Your task to perform on an android device: Open Reddit.com Image 0: 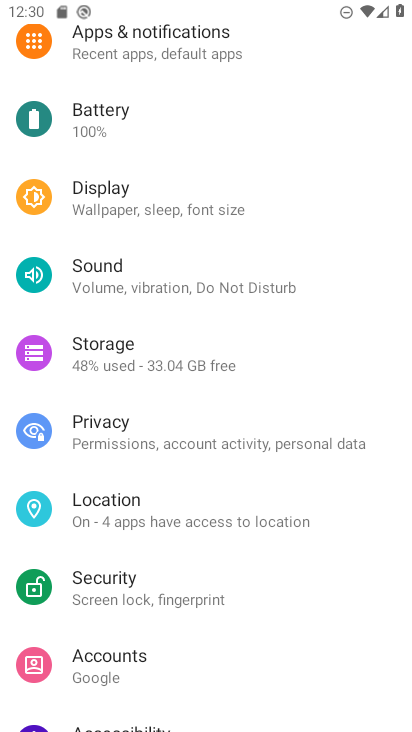
Step 0: drag from (297, 568) to (246, 252)
Your task to perform on an android device: Open Reddit.com Image 1: 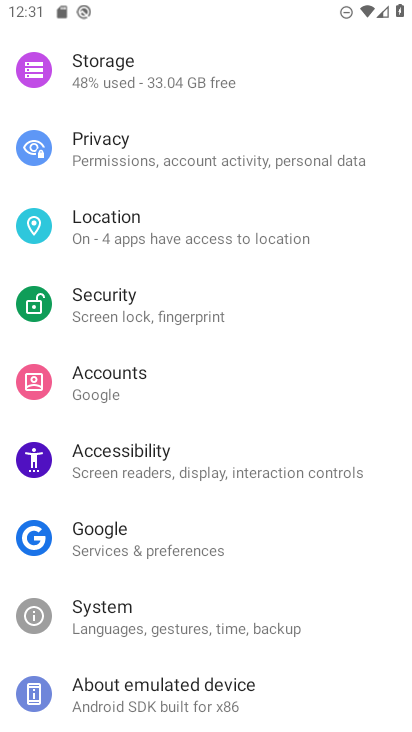
Step 1: press home button
Your task to perform on an android device: Open Reddit.com Image 2: 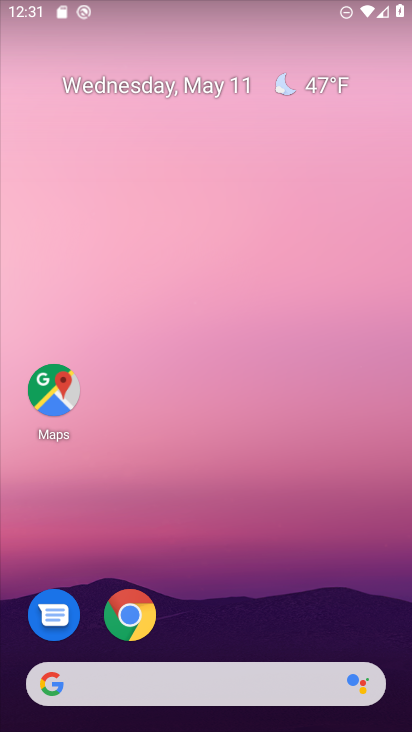
Step 2: click (139, 618)
Your task to perform on an android device: Open Reddit.com Image 3: 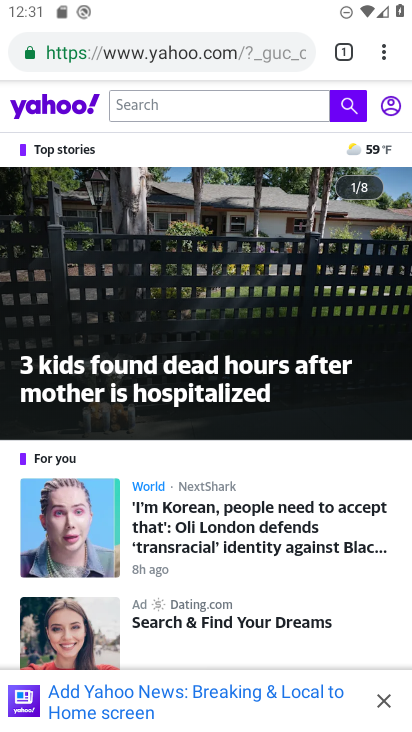
Step 3: click (173, 49)
Your task to perform on an android device: Open Reddit.com Image 4: 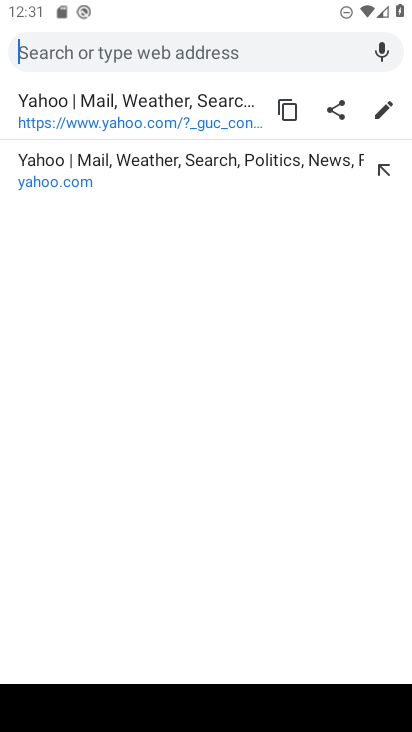
Step 4: type "reddit"
Your task to perform on an android device: Open Reddit.com Image 5: 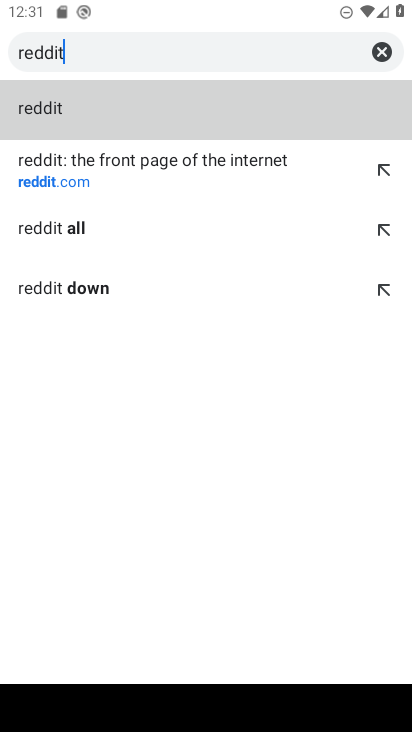
Step 5: click (65, 165)
Your task to perform on an android device: Open Reddit.com Image 6: 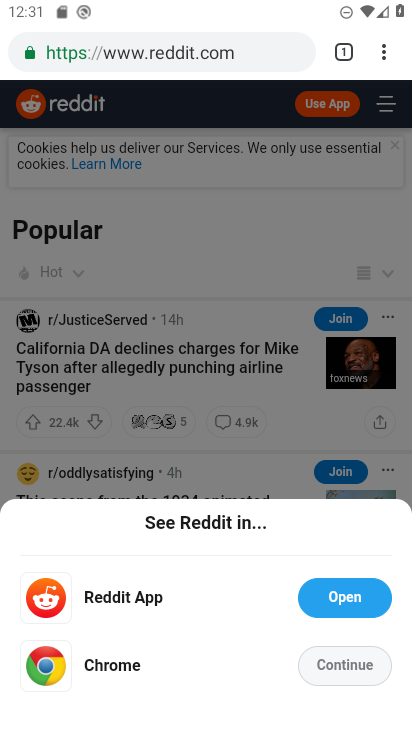
Step 6: task complete